Your task to perform on an android device: Open accessibility settings Image 0: 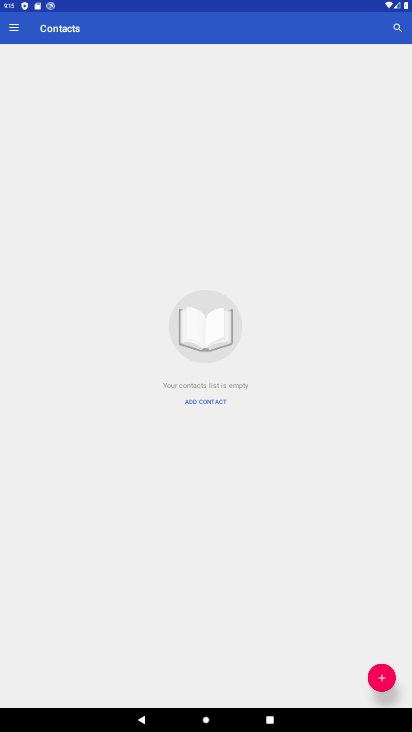
Step 0: press home button
Your task to perform on an android device: Open accessibility settings Image 1: 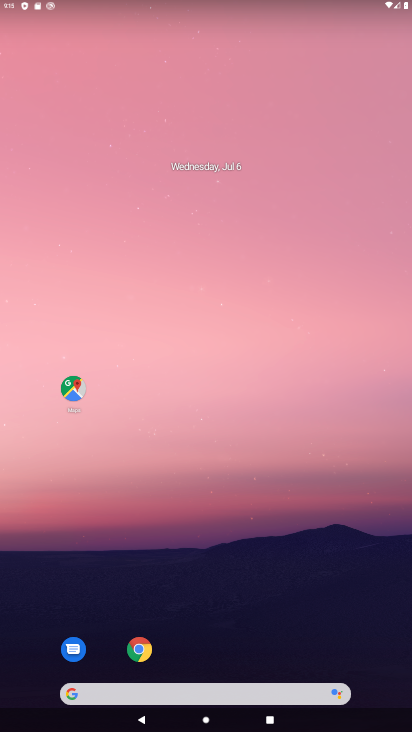
Step 1: drag from (241, 595) to (251, 300)
Your task to perform on an android device: Open accessibility settings Image 2: 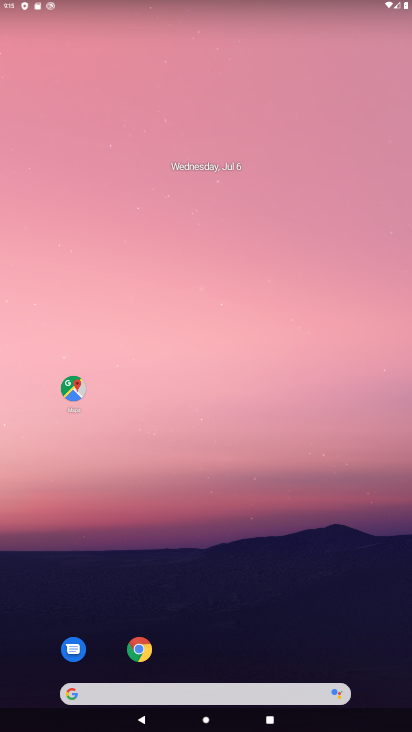
Step 2: drag from (224, 657) to (138, 8)
Your task to perform on an android device: Open accessibility settings Image 3: 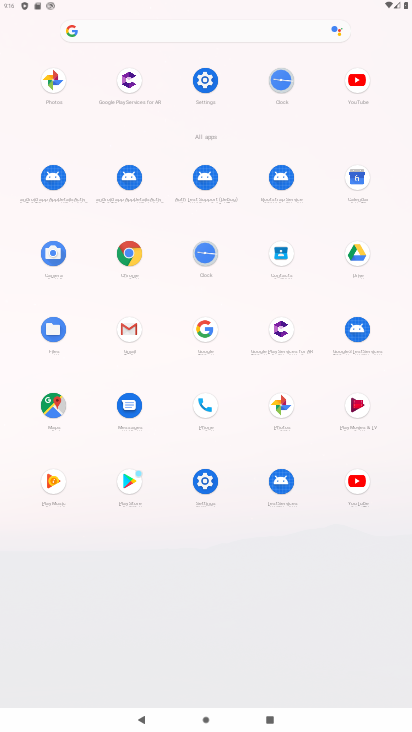
Step 3: click (213, 487)
Your task to perform on an android device: Open accessibility settings Image 4: 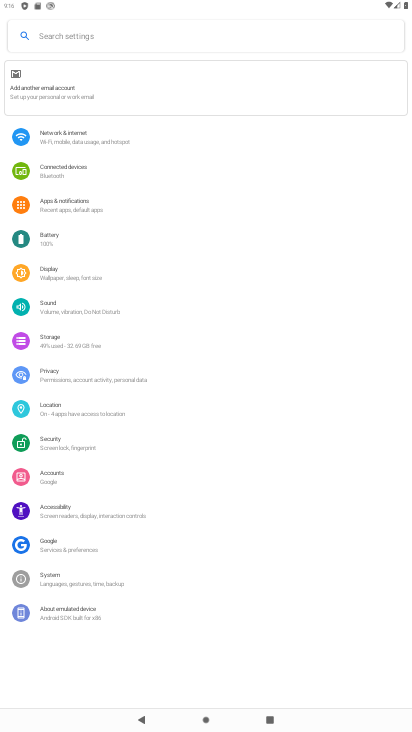
Step 4: click (90, 516)
Your task to perform on an android device: Open accessibility settings Image 5: 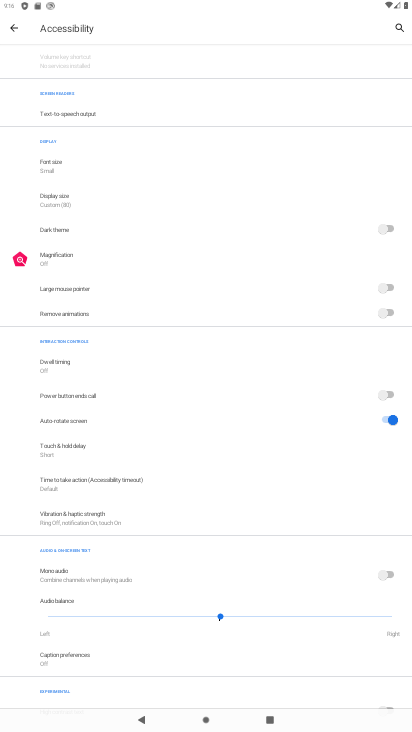
Step 5: task complete